Your task to perform on an android device: turn notification dots on Image 0: 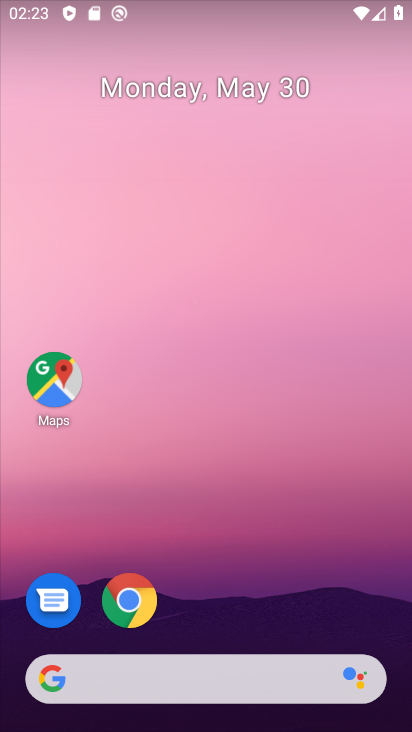
Step 0: drag from (262, 607) to (320, 102)
Your task to perform on an android device: turn notification dots on Image 1: 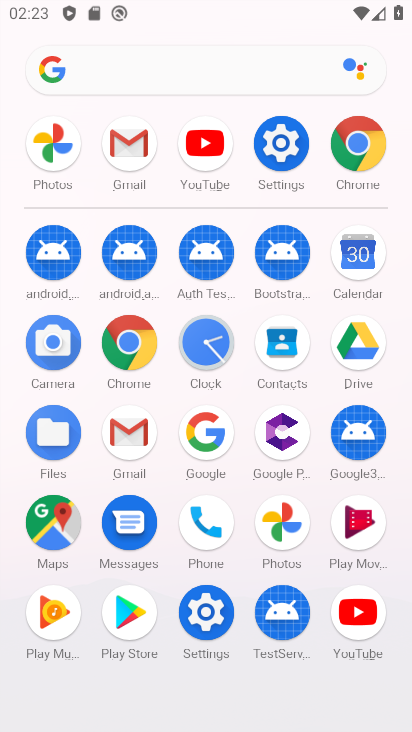
Step 1: click (285, 151)
Your task to perform on an android device: turn notification dots on Image 2: 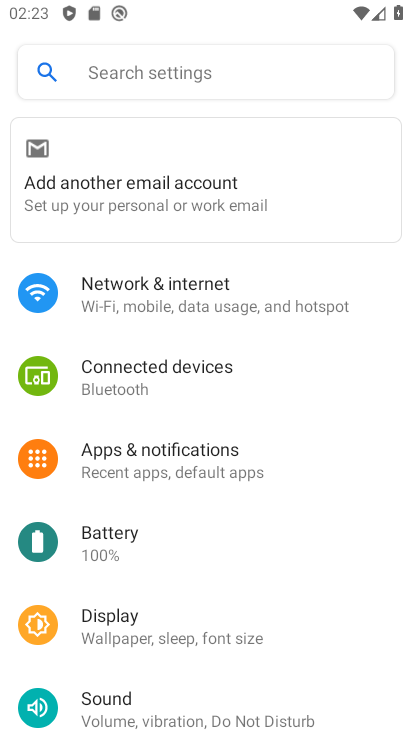
Step 2: click (185, 454)
Your task to perform on an android device: turn notification dots on Image 3: 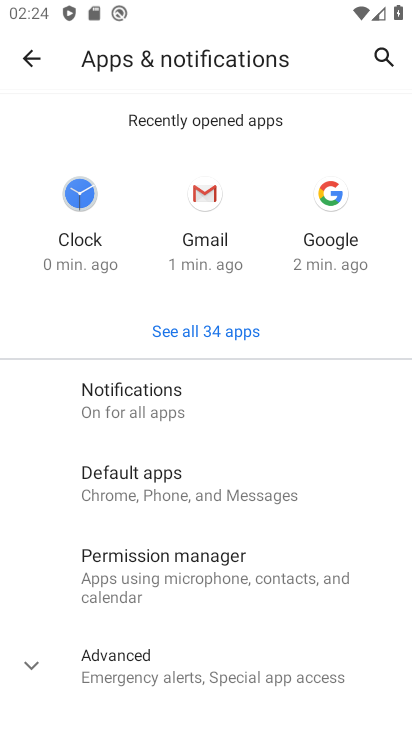
Step 3: click (164, 395)
Your task to perform on an android device: turn notification dots on Image 4: 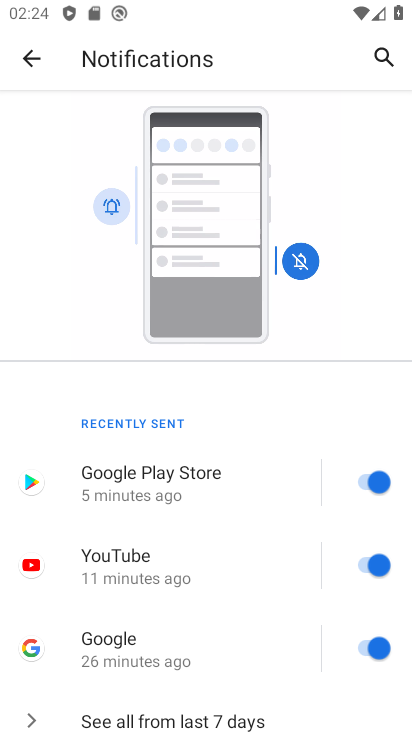
Step 4: drag from (214, 628) to (259, 223)
Your task to perform on an android device: turn notification dots on Image 5: 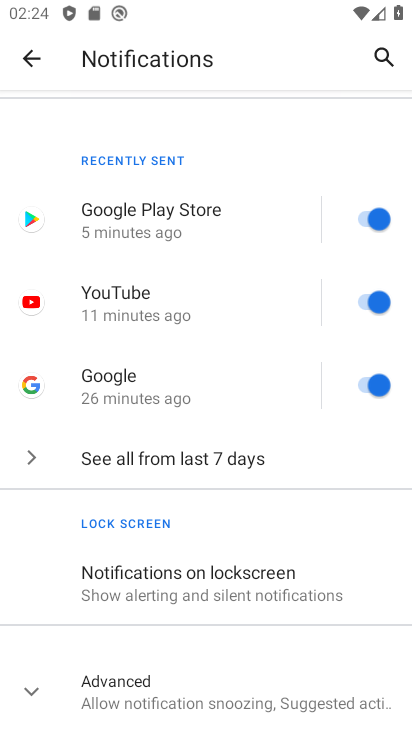
Step 5: click (203, 696)
Your task to perform on an android device: turn notification dots on Image 6: 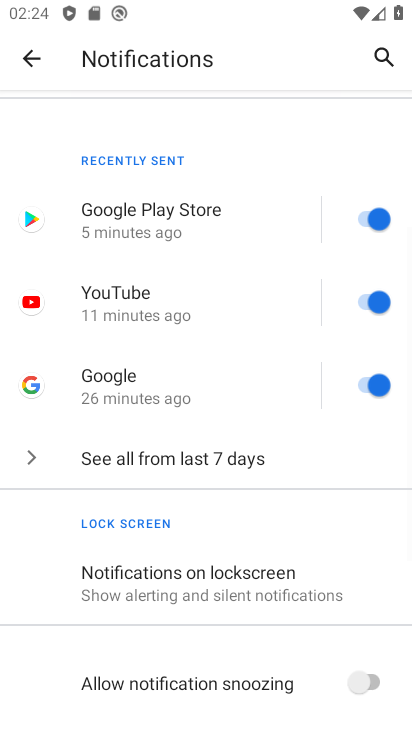
Step 6: drag from (245, 651) to (277, 240)
Your task to perform on an android device: turn notification dots on Image 7: 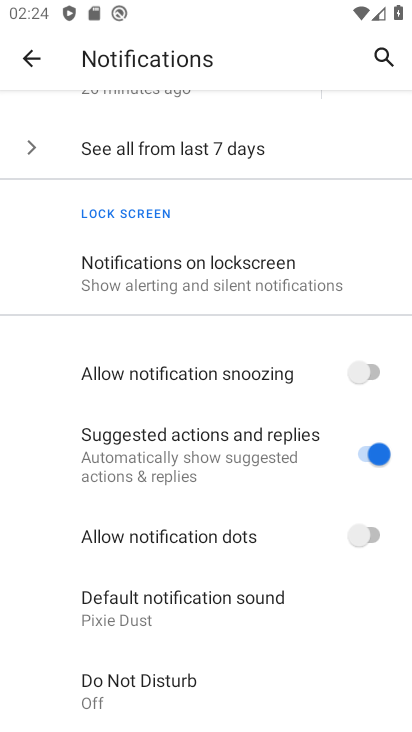
Step 7: click (386, 530)
Your task to perform on an android device: turn notification dots on Image 8: 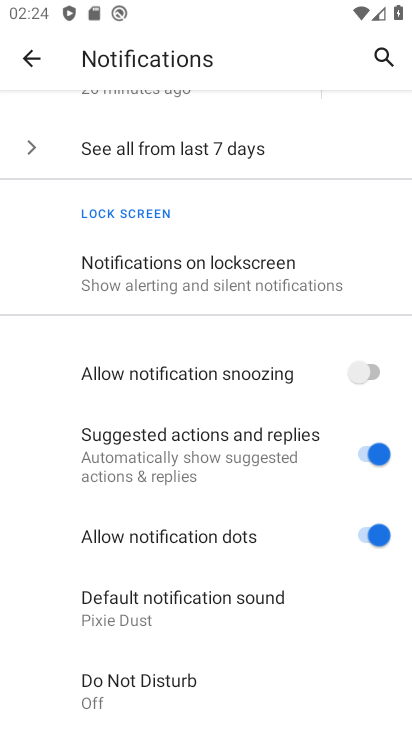
Step 8: task complete